Your task to perform on an android device: Open maps Image 0: 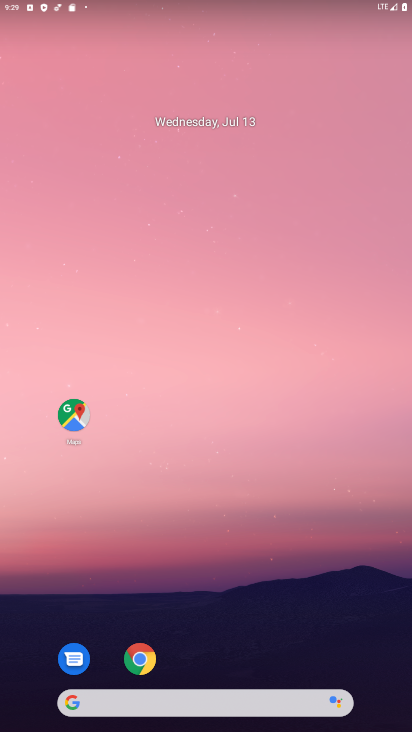
Step 0: click (72, 417)
Your task to perform on an android device: Open maps Image 1: 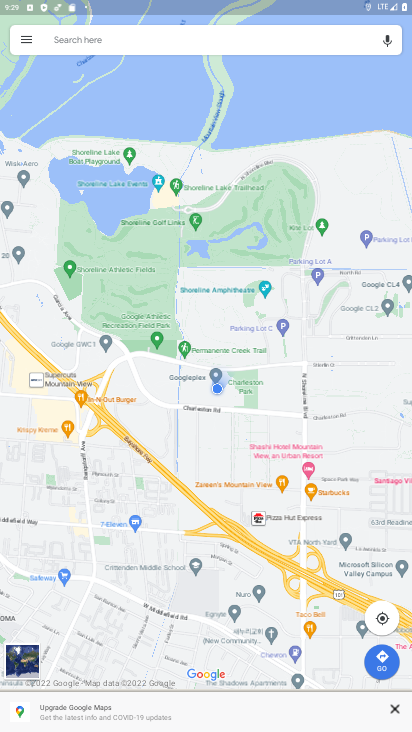
Step 1: task complete